Your task to perform on an android device: turn off priority inbox in the gmail app Image 0: 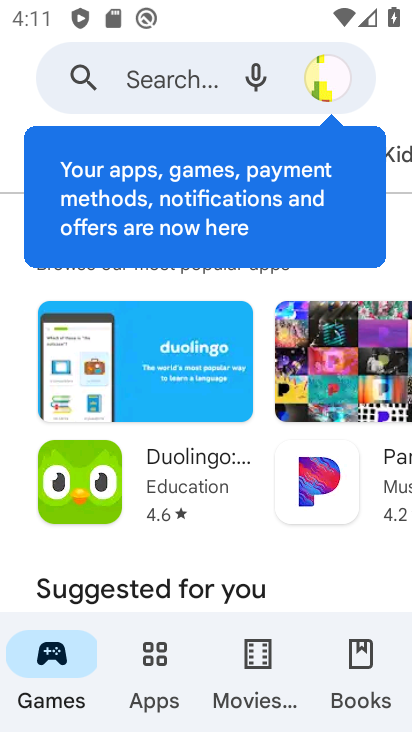
Step 0: press back button
Your task to perform on an android device: turn off priority inbox in the gmail app Image 1: 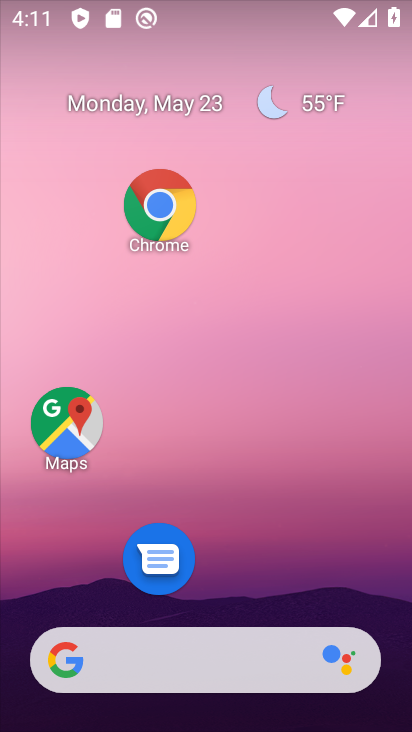
Step 1: drag from (257, 711) to (161, 126)
Your task to perform on an android device: turn off priority inbox in the gmail app Image 2: 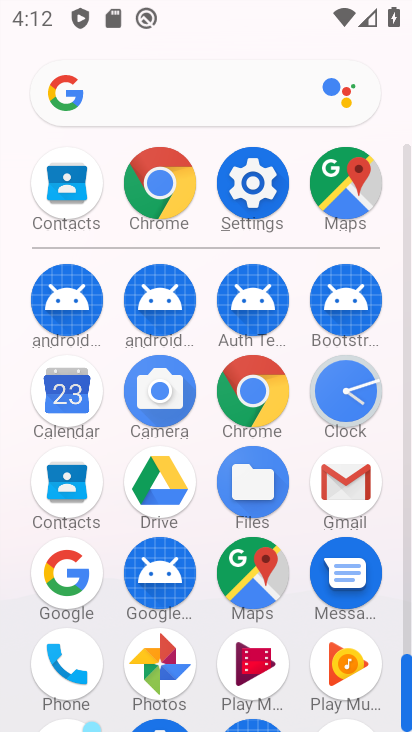
Step 2: click (339, 480)
Your task to perform on an android device: turn off priority inbox in the gmail app Image 3: 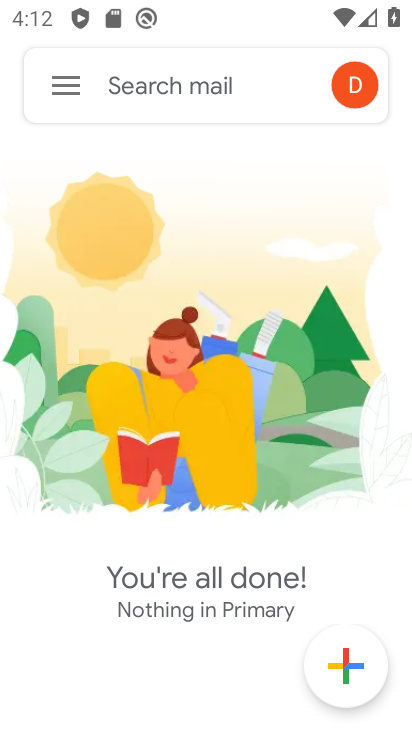
Step 3: click (63, 75)
Your task to perform on an android device: turn off priority inbox in the gmail app Image 4: 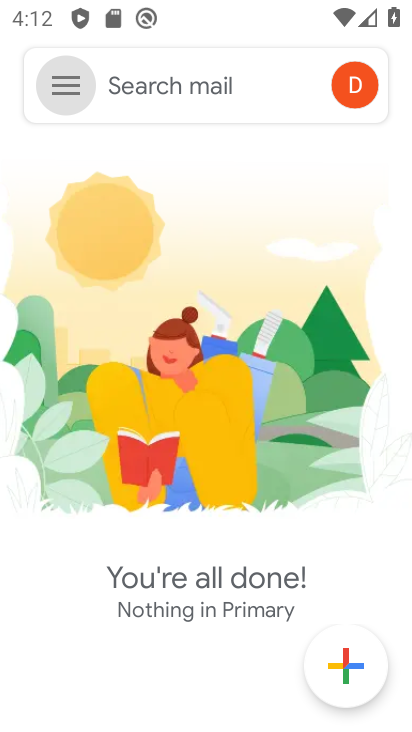
Step 4: click (63, 75)
Your task to perform on an android device: turn off priority inbox in the gmail app Image 5: 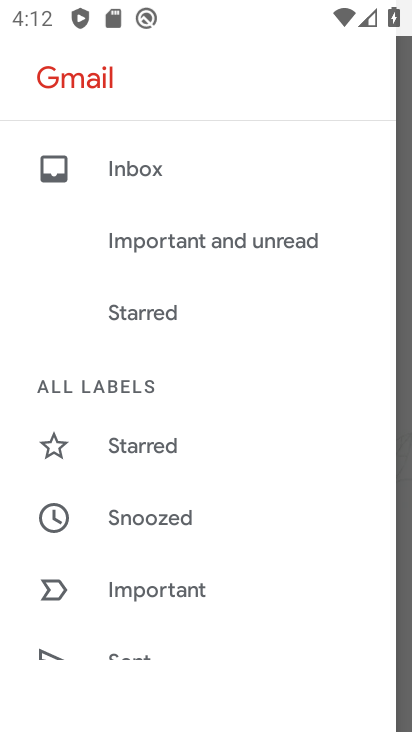
Step 5: drag from (178, 521) to (148, 159)
Your task to perform on an android device: turn off priority inbox in the gmail app Image 6: 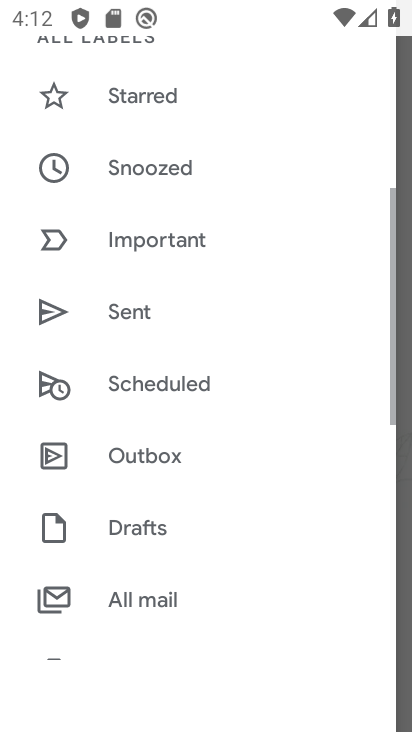
Step 6: drag from (221, 423) to (208, 89)
Your task to perform on an android device: turn off priority inbox in the gmail app Image 7: 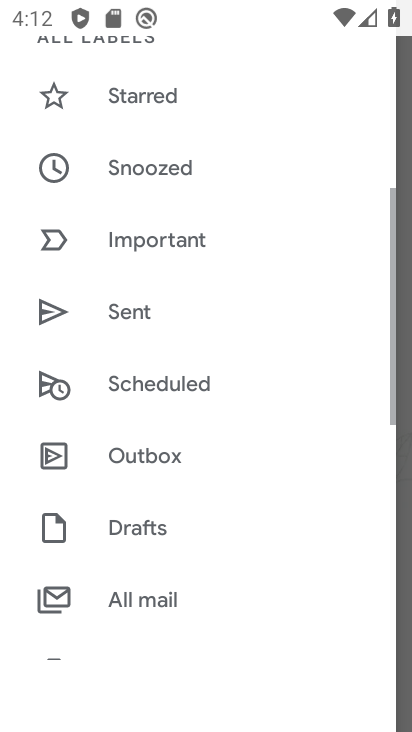
Step 7: drag from (230, 489) to (201, 95)
Your task to perform on an android device: turn off priority inbox in the gmail app Image 8: 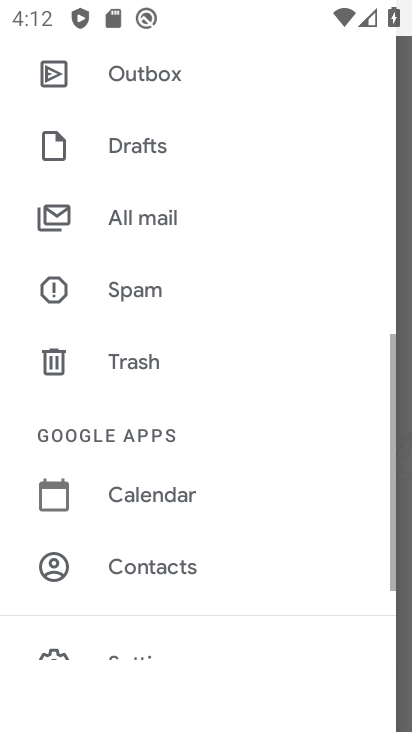
Step 8: drag from (247, 577) to (191, 173)
Your task to perform on an android device: turn off priority inbox in the gmail app Image 9: 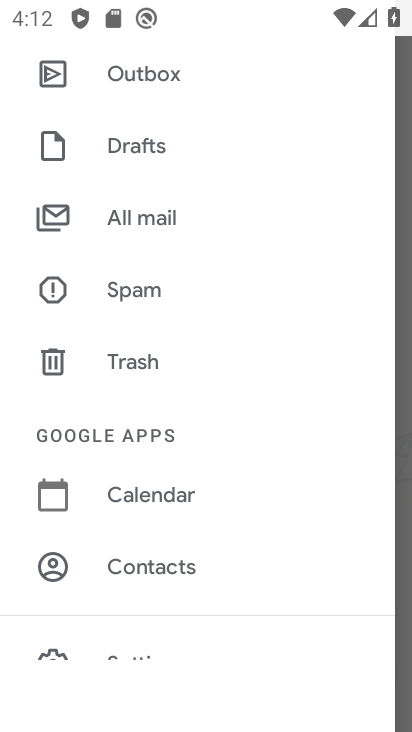
Step 9: drag from (247, 529) to (193, 99)
Your task to perform on an android device: turn off priority inbox in the gmail app Image 10: 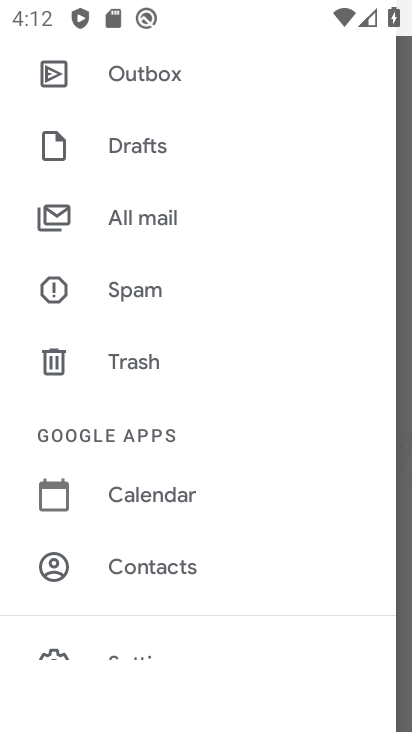
Step 10: drag from (238, 358) to (244, 3)
Your task to perform on an android device: turn off priority inbox in the gmail app Image 11: 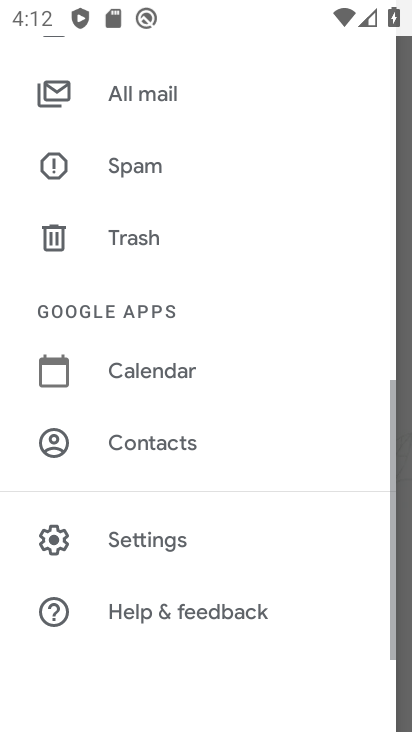
Step 11: drag from (279, 434) to (265, 3)
Your task to perform on an android device: turn off priority inbox in the gmail app Image 12: 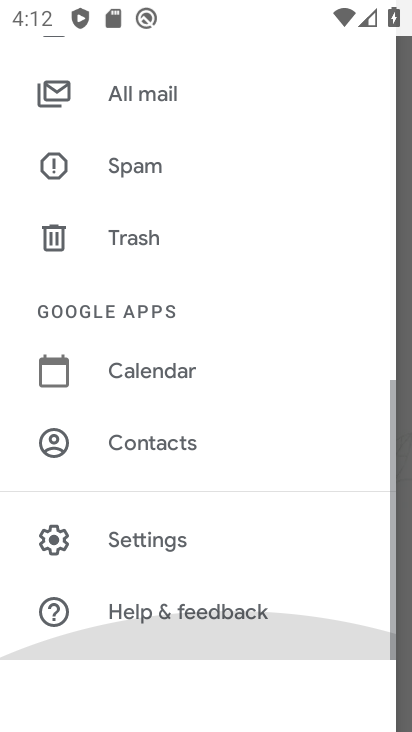
Step 12: drag from (244, 407) to (228, 42)
Your task to perform on an android device: turn off priority inbox in the gmail app Image 13: 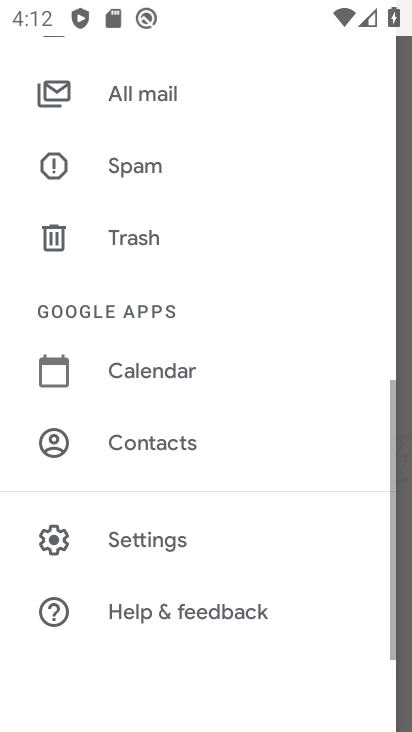
Step 13: drag from (207, 469) to (220, 99)
Your task to perform on an android device: turn off priority inbox in the gmail app Image 14: 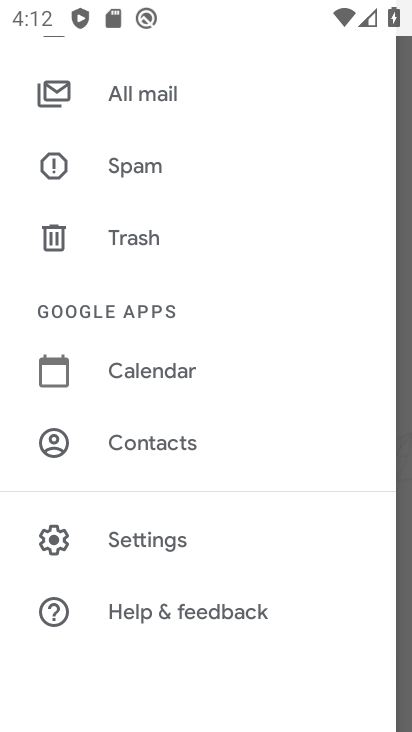
Step 14: click (139, 536)
Your task to perform on an android device: turn off priority inbox in the gmail app Image 15: 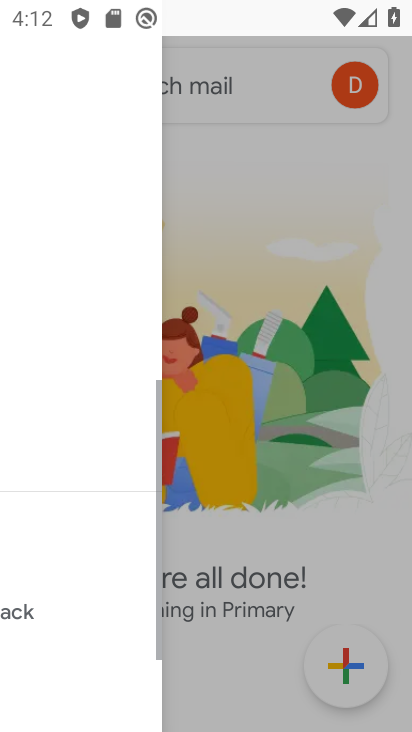
Step 15: click (139, 536)
Your task to perform on an android device: turn off priority inbox in the gmail app Image 16: 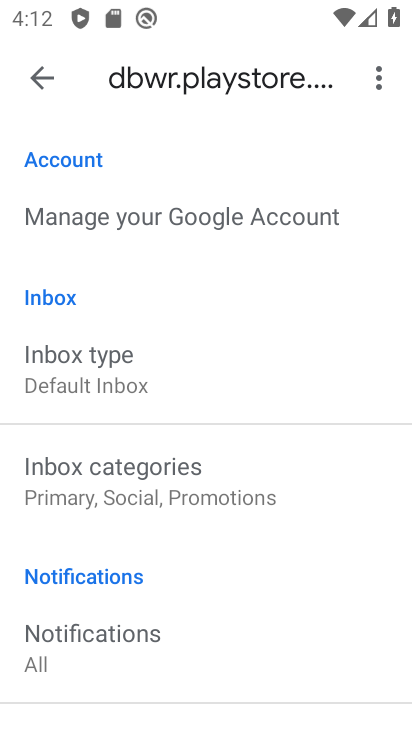
Step 16: click (52, 366)
Your task to perform on an android device: turn off priority inbox in the gmail app Image 17: 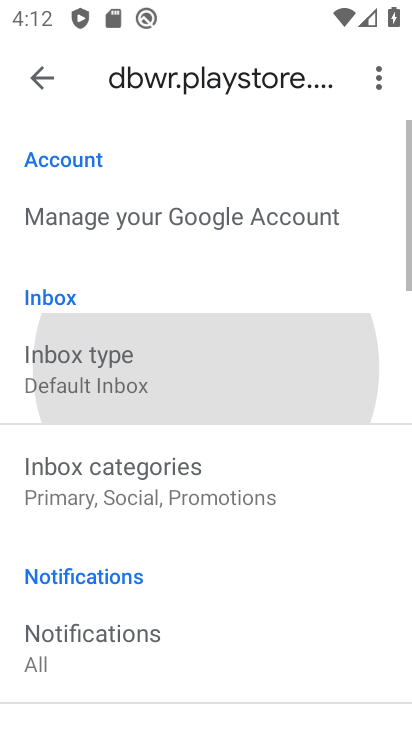
Step 17: click (53, 368)
Your task to perform on an android device: turn off priority inbox in the gmail app Image 18: 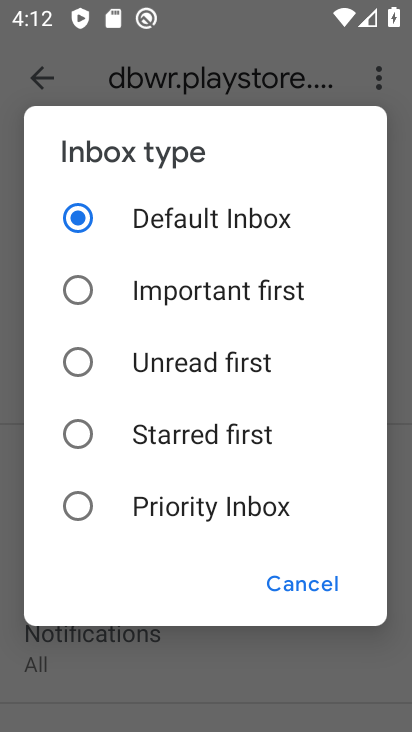
Step 18: click (295, 586)
Your task to perform on an android device: turn off priority inbox in the gmail app Image 19: 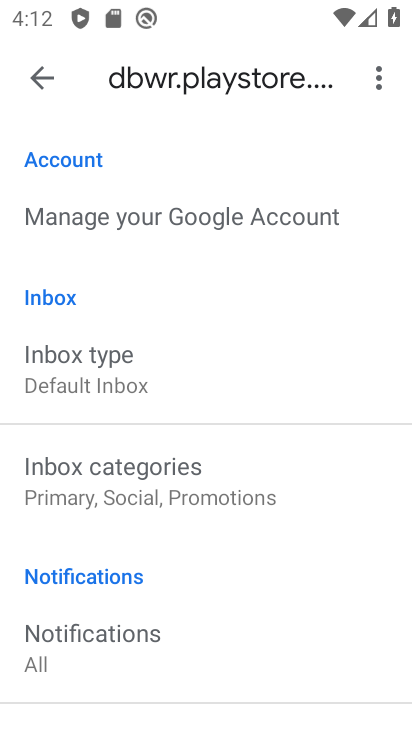
Step 19: task complete